Your task to perform on an android device: Turn on the flashlight Image 0: 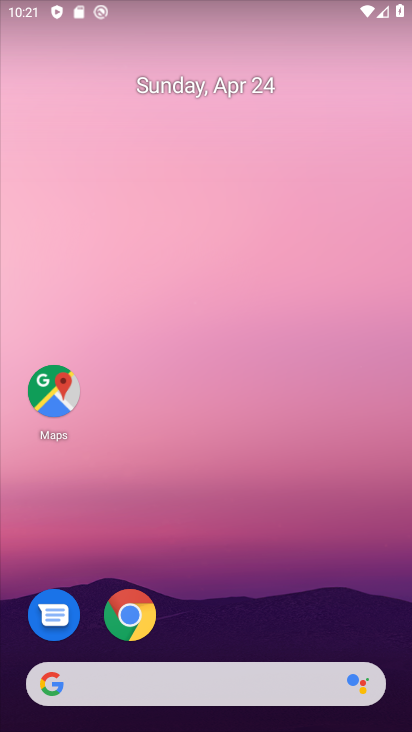
Step 0: drag from (223, 633) to (242, 137)
Your task to perform on an android device: Turn on the flashlight Image 1: 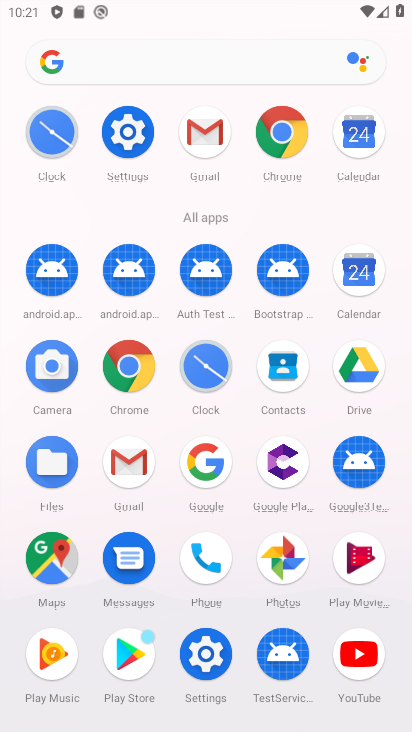
Step 1: click (123, 126)
Your task to perform on an android device: Turn on the flashlight Image 2: 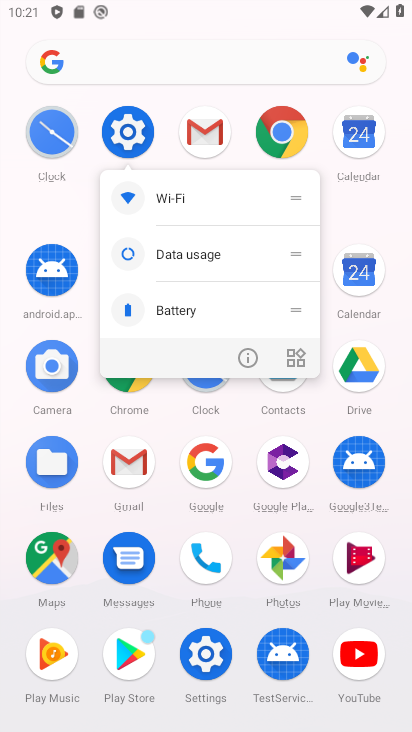
Step 2: click (126, 124)
Your task to perform on an android device: Turn on the flashlight Image 3: 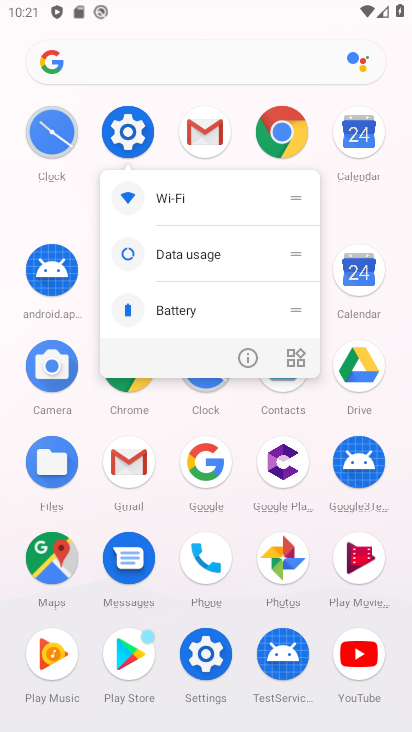
Step 3: click (126, 124)
Your task to perform on an android device: Turn on the flashlight Image 4: 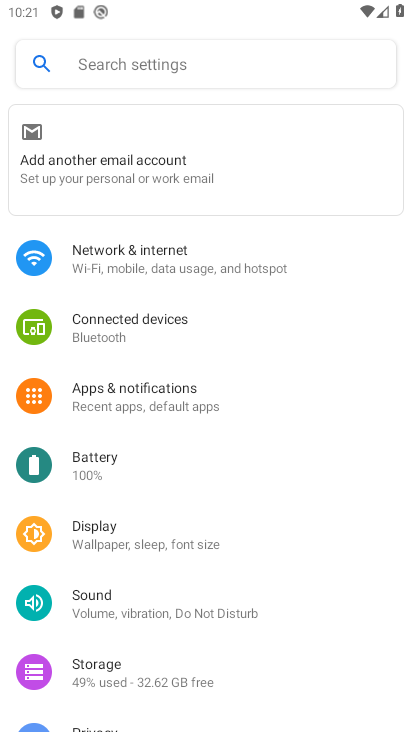
Step 4: click (133, 56)
Your task to perform on an android device: Turn on the flashlight Image 5: 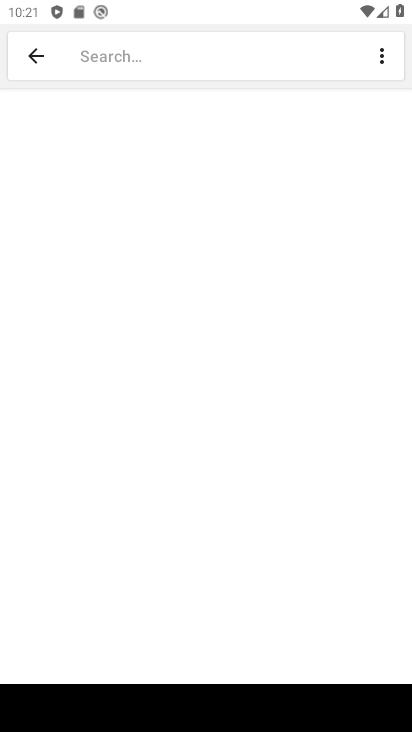
Step 5: type "flashlight"
Your task to perform on an android device: Turn on the flashlight Image 6: 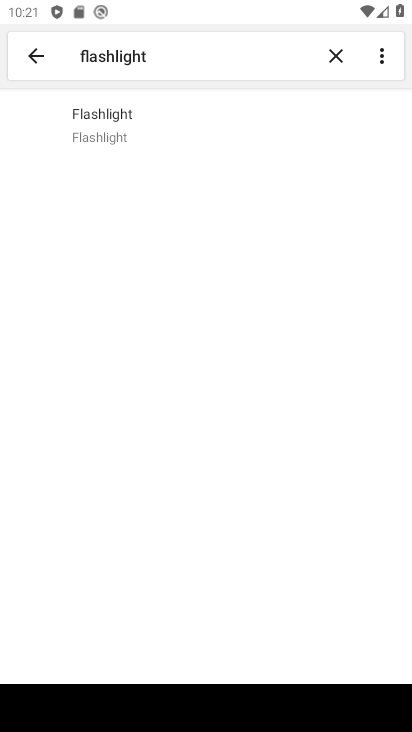
Step 6: click (143, 120)
Your task to perform on an android device: Turn on the flashlight Image 7: 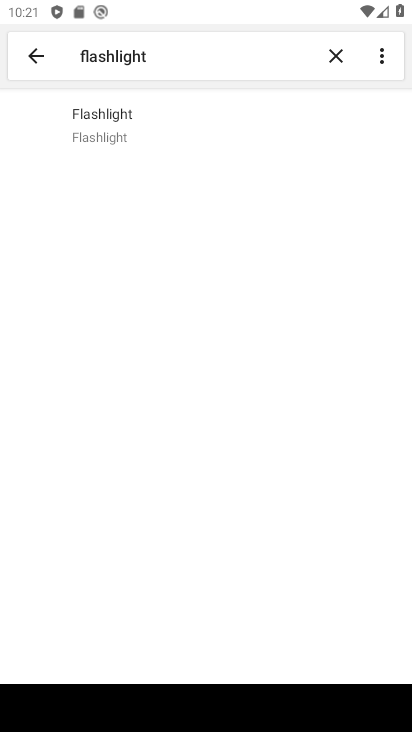
Step 7: click (143, 120)
Your task to perform on an android device: Turn on the flashlight Image 8: 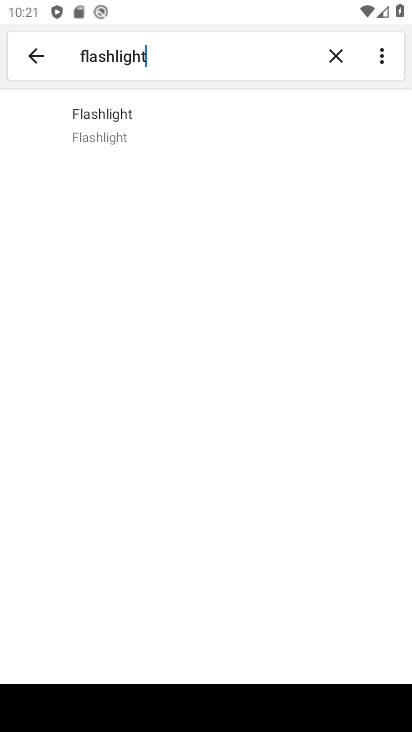
Step 8: task complete